Your task to perform on an android device: What's on my calendar tomorrow? Image 0: 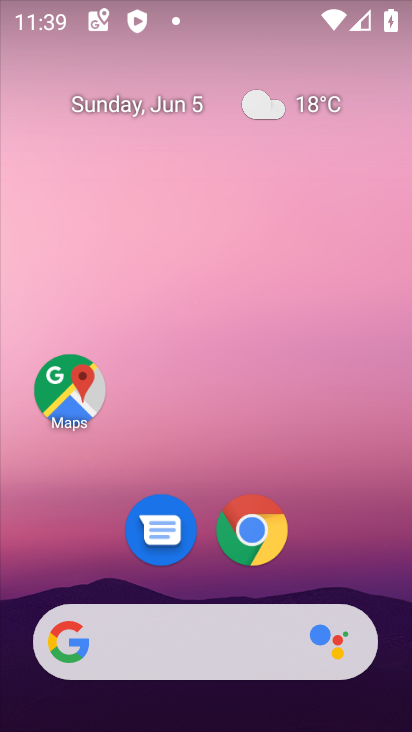
Step 0: drag from (362, 547) to (371, 84)
Your task to perform on an android device: What's on my calendar tomorrow? Image 1: 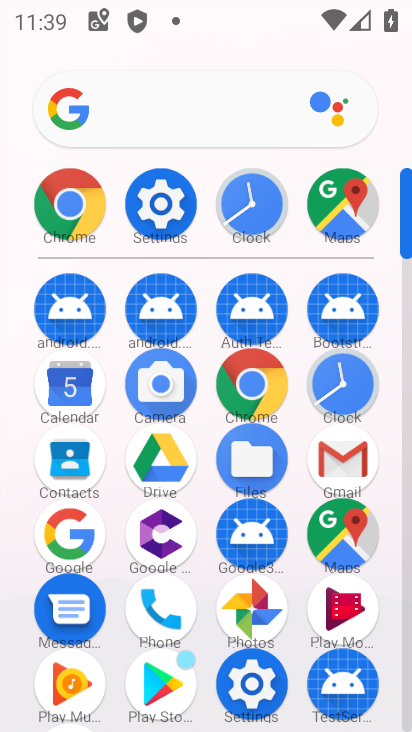
Step 1: press home button
Your task to perform on an android device: What's on my calendar tomorrow? Image 2: 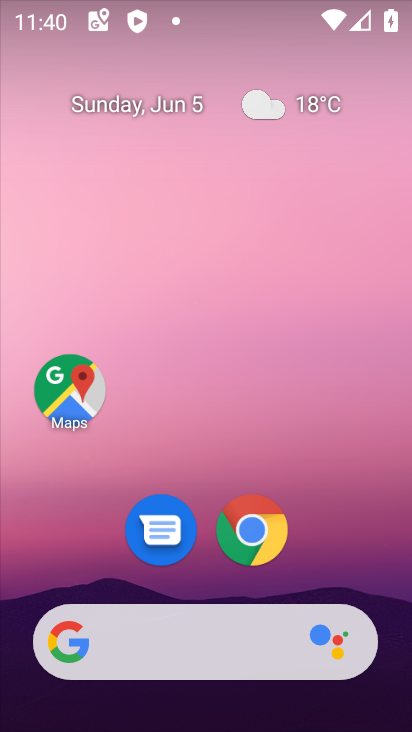
Step 2: click (327, 98)
Your task to perform on an android device: What's on my calendar tomorrow? Image 3: 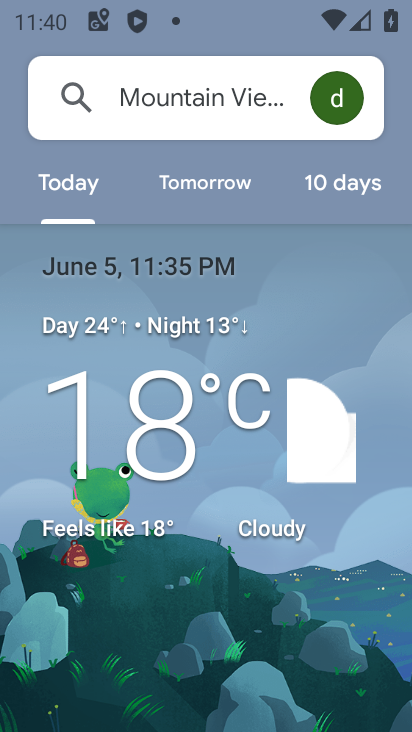
Step 3: press home button
Your task to perform on an android device: What's on my calendar tomorrow? Image 4: 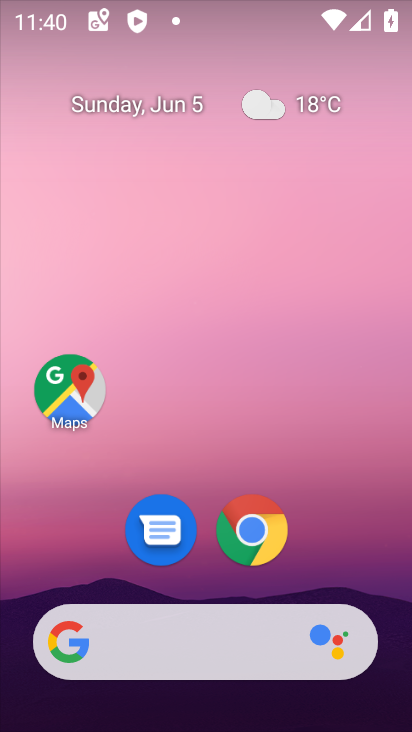
Step 4: click (111, 114)
Your task to perform on an android device: What's on my calendar tomorrow? Image 5: 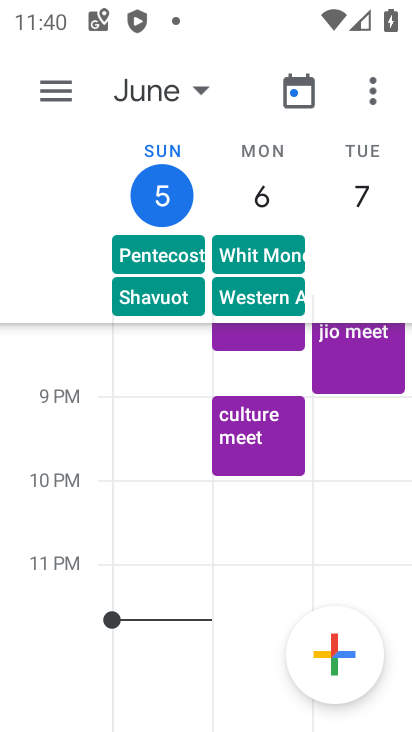
Step 5: click (133, 91)
Your task to perform on an android device: What's on my calendar tomorrow? Image 6: 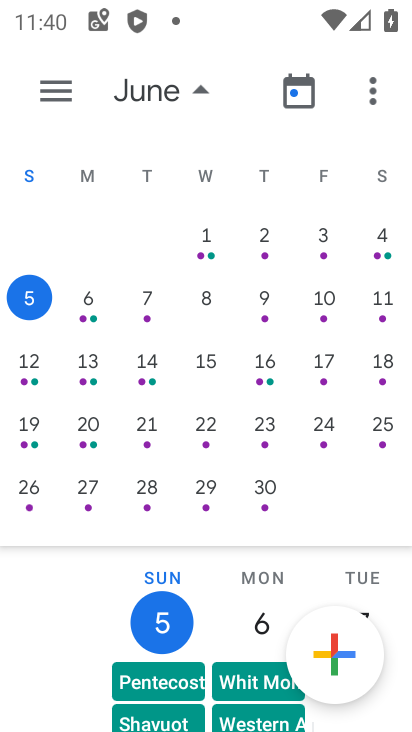
Step 6: click (85, 316)
Your task to perform on an android device: What's on my calendar tomorrow? Image 7: 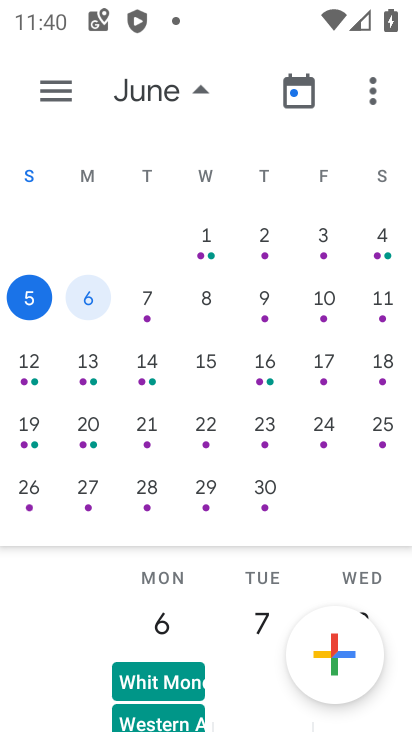
Step 7: task complete